Your task to perform on an android device: What's the weather going to be tomorrow? Image 0: 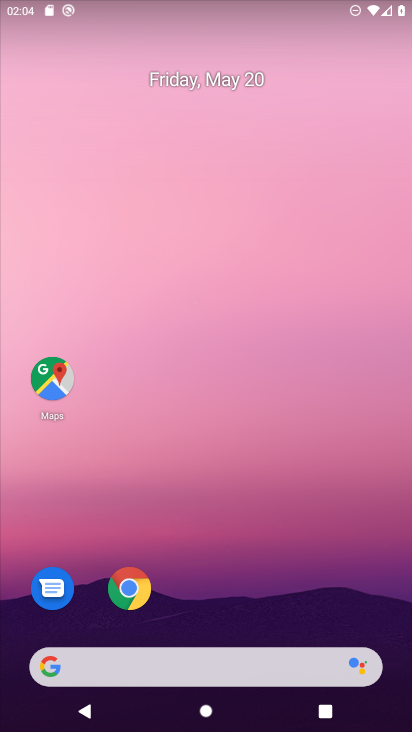
Step 0: drag from (16, 187) to (384, 246)
Your task to perform on an android device: What's the weather going to be tomorrow? Image 1: 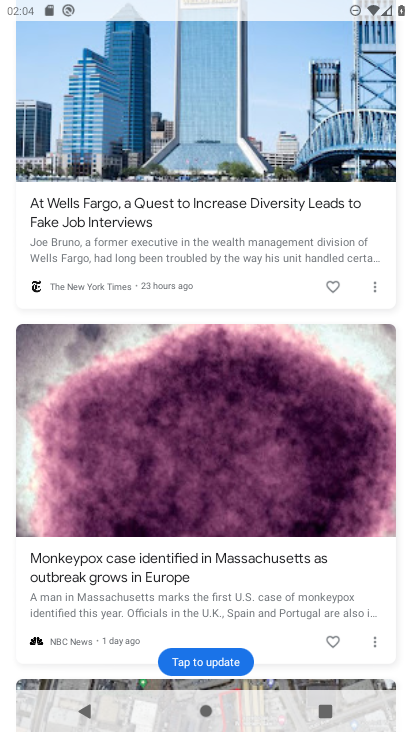
Step 1: drag from (295, 113) to (296, 541)
Your task to perform on an android device: What's the weather going to be tomorrow? Image 2: 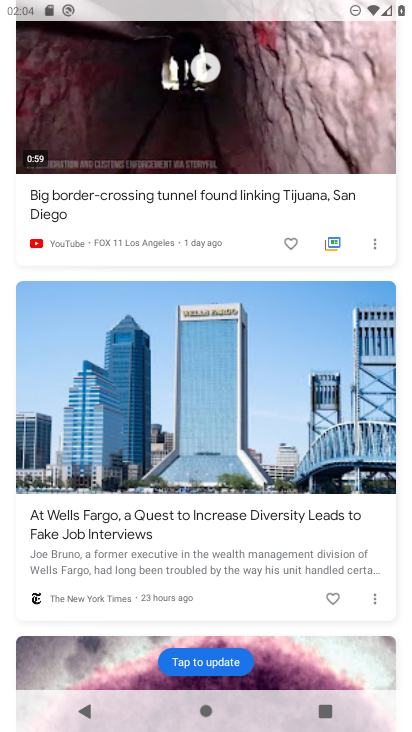
Step 2: drag from (249, 180) to (220, 594)
Your task to perform on an android device: What's the weather going to be tomorrow? Image 3: 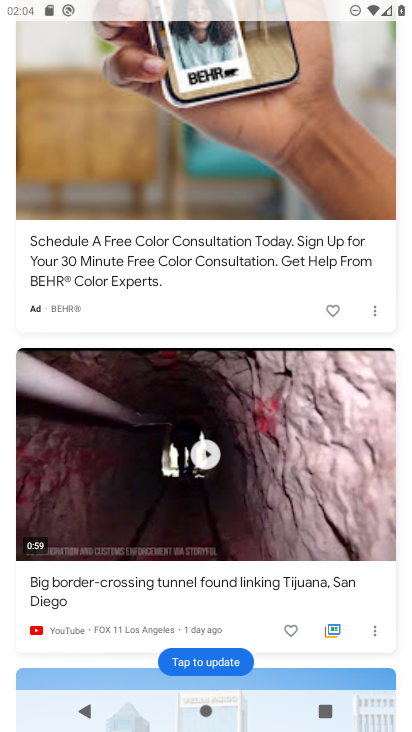
Step 3: drag from (260, 179) to (248, 489)
Your task to perform on an android device: What's the weather going to be tomorrow? Image 4: 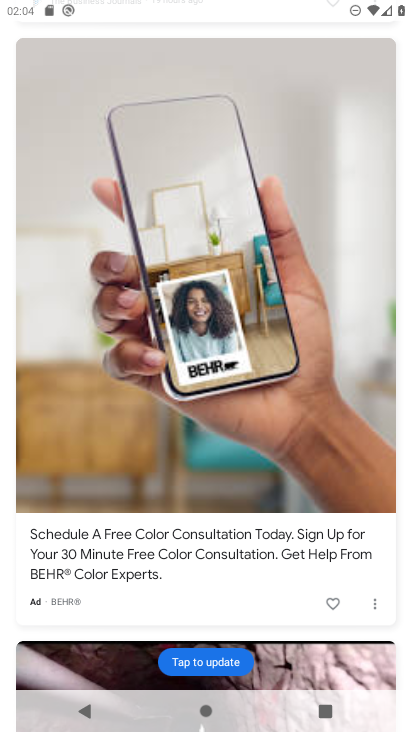
Step 4: drag from (258, 167) to (264, 586)
Your task to perform on an android device: What's the weather going to be tomorrow? Image 5: 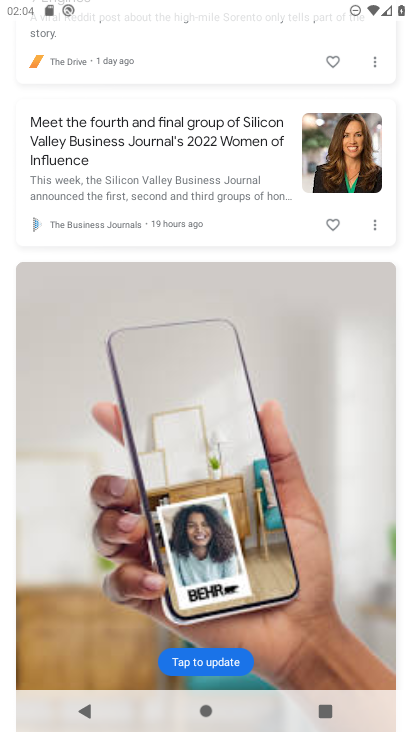
Step 5: drag from (244, 86) to (254, 551)
Your task to perform on an android device: What's the weather going to be tomorrow? Image 6: 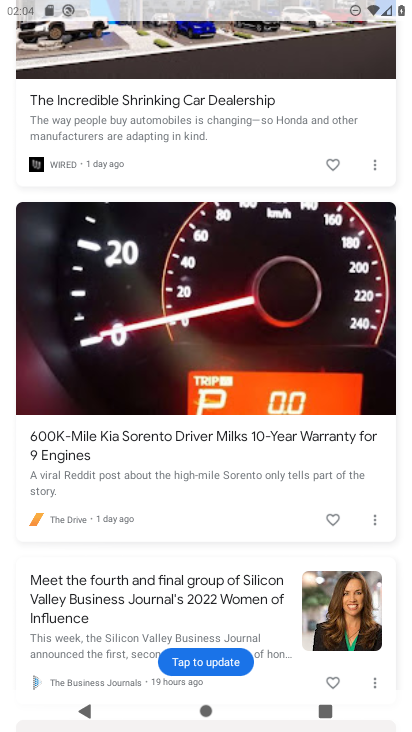
Step 6: drag from (293, 87) to (275, 537)
Your task to perform on an android device: What's the weather going to be tomorrow? Image 7: 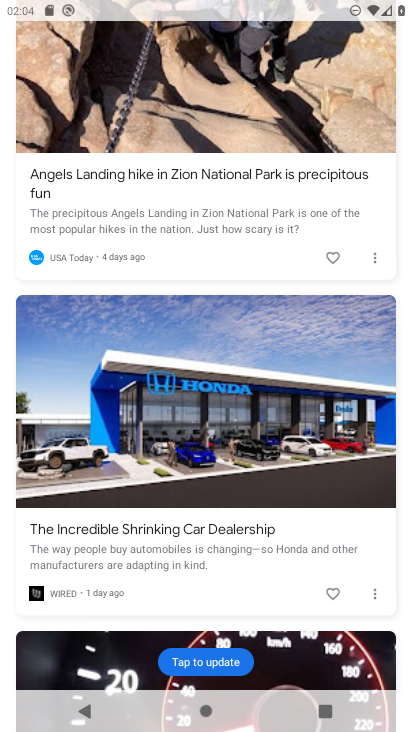
Step 7: drag from (291, 154) to (288, 549)
Your task to perform on an android device: What's the weather going to be tomorrow? Image 8: 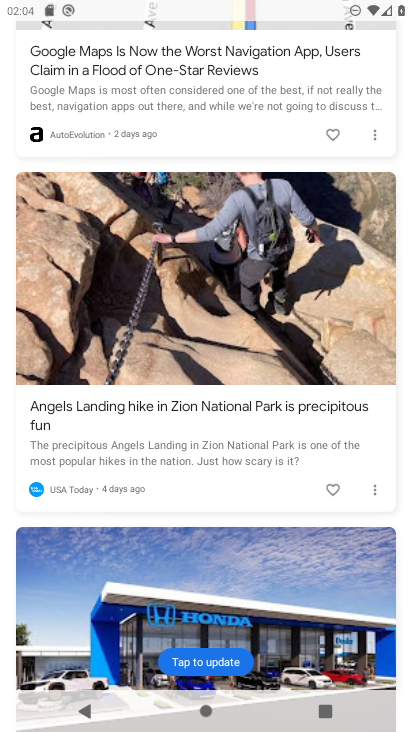
Step 8: drag from (283, 115) to (281, 542)
Your task to perform on an android device: What's the weather going to be tomorrow? Image 9: 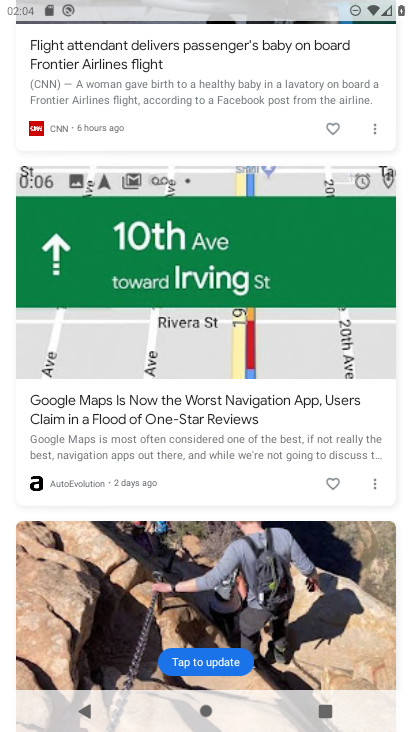
Step 9: drag from (315, 117) to (293, 528)
Your task to perform on an android device: What's the weather going to be tomorrow? Image 10: 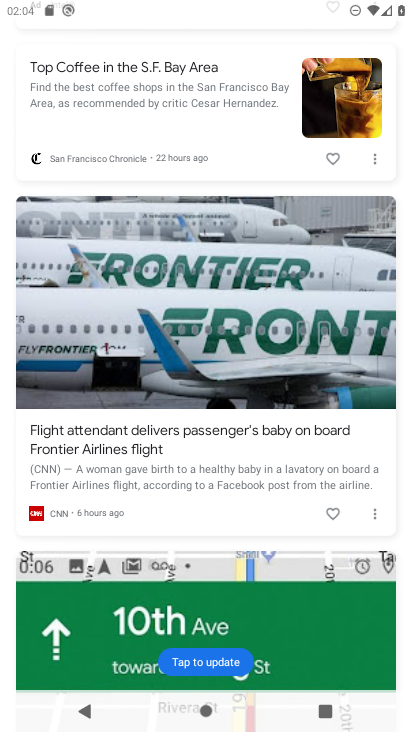
Step 10: drag from (277, 145) to (242, 556)
Your task to perform on an android device: What's the weather going to be tomorrow? Image 11: 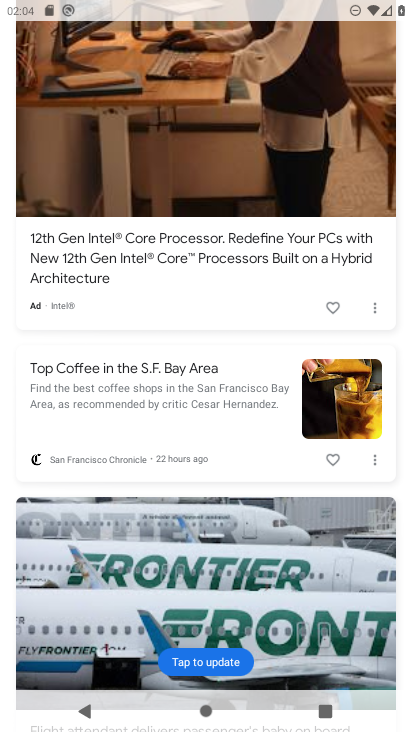
Step 11: drag from (235, 137) to (227, 539)
Your task to perform on an android device: What's the weather going to be tomorrow? Image 12: 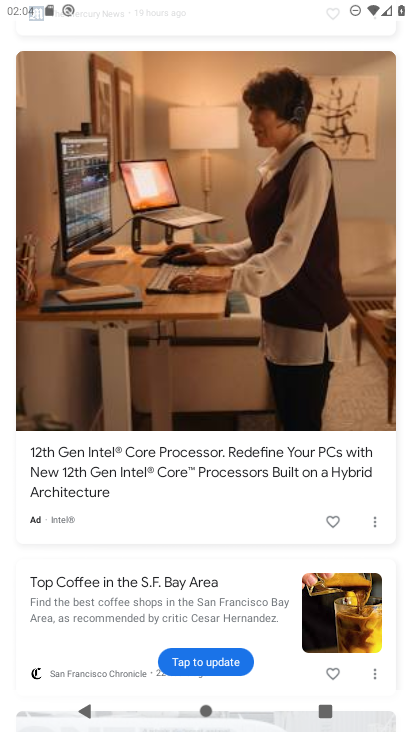
Step 12: drag from (250, 95) to (273, 497)
Your task to perform on an android device: What's the weather going to be tomorrow? Image 13: 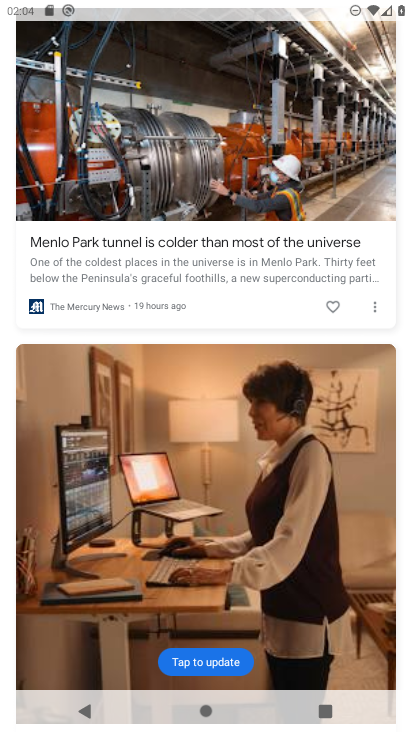
Step 13: drag from (265, 293) to (267, 506)
Your task to perform on an android device: What's the weather going to be tomorrow? Image 14: 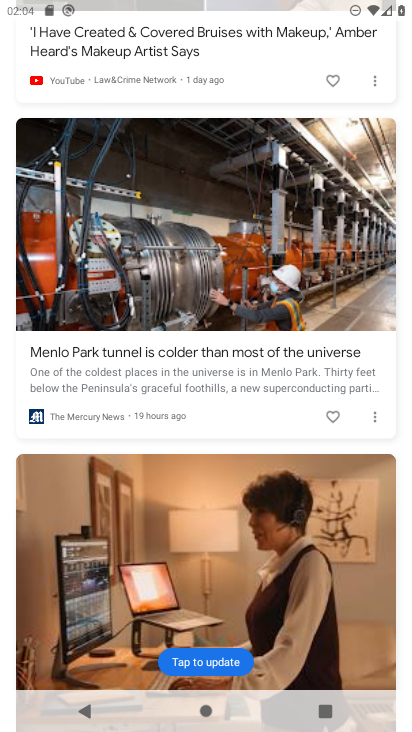
Step 14: drag from (261, 46) to (249, 585)
Your task to perform on an android device: What's the weather going to be tomorrow? Image 15: 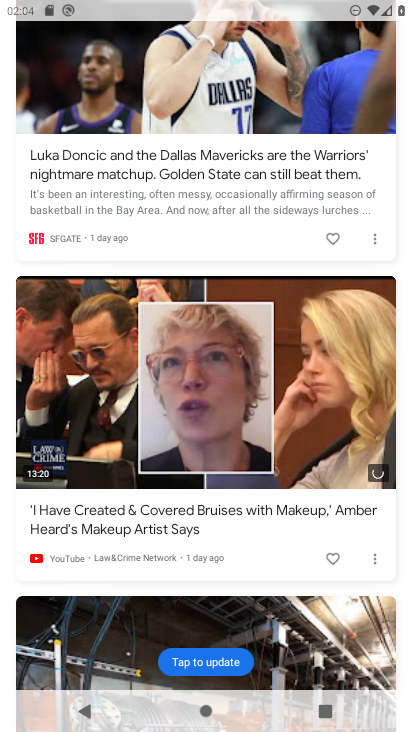
Step 15: drag from (288, 121) to (294, 482)
Your task to perform on an android device: What's the weather going to be tomorrow? Image 16: 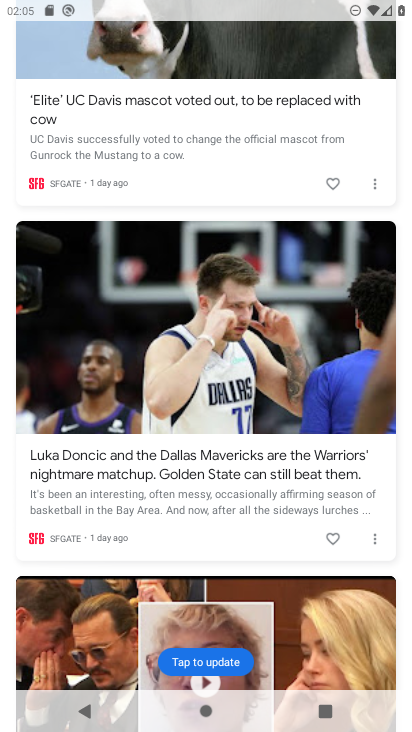
Step 16: drag from (272, 60) to (290, 533)
Your task to perform on an android device: What's the weather going to be tomorrow? Image 17: 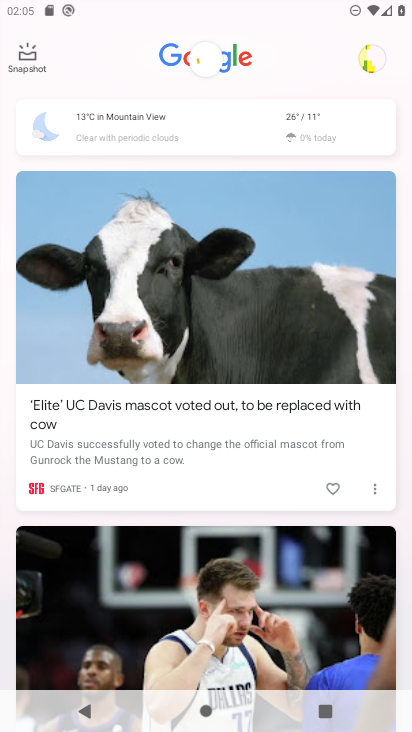
Step 17: click (303, 108)
Your task to perform on an android device: What's the weather going to be tomorrow? Image 18: 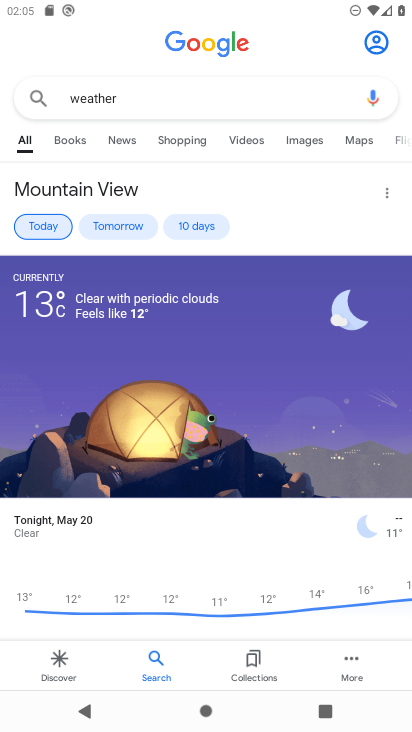
Step 18: click (111, 219)
Your task to perform on an android device: What's the weather going to be tomorrow? Image 19: 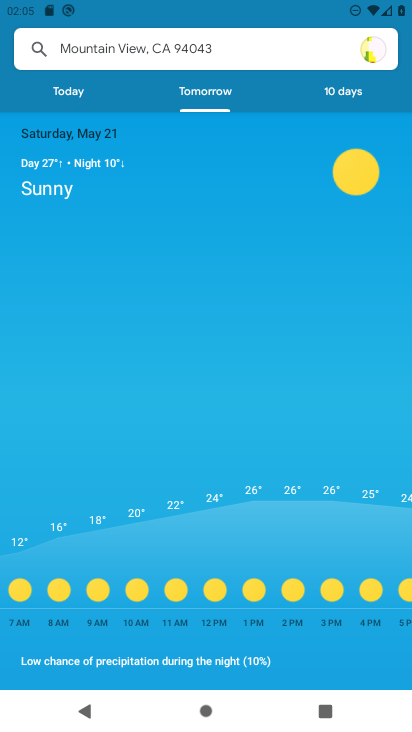
Step 19: task complete